Your task to perform on an android device: open sync settings in chrome Image 0: 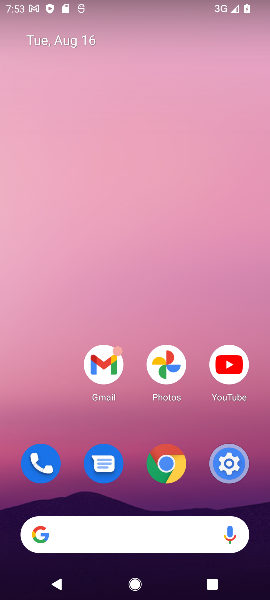
Step 0: click (164, 474)
Your task to perform on an android device: open sync settings in chrome Image 1: 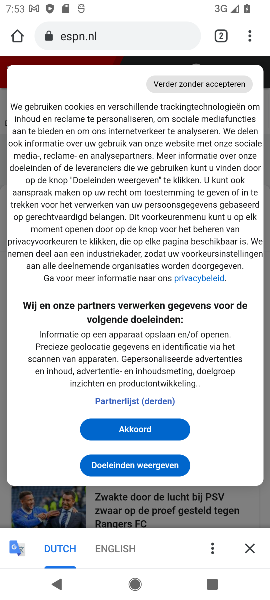
Step 1: click (242, 31)
Your task to perform on an android device: open sync settings in chrome Image 2: 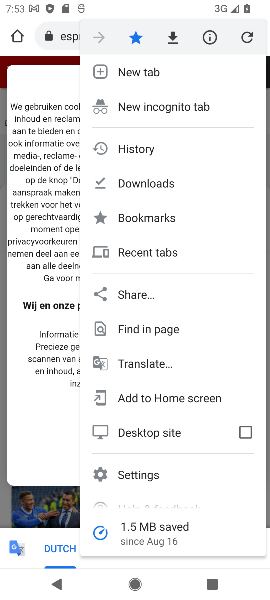
Step 2: click (136, 484)
Your task to perform on an android device: open sync settings in chrome Image 3: 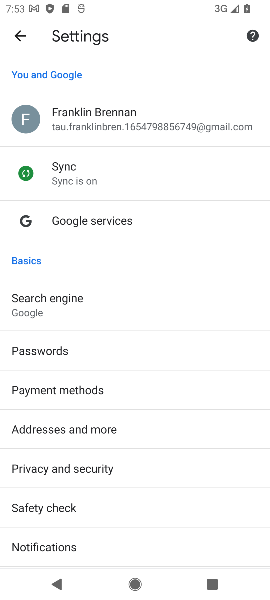
Step 3: click (100, 182)
Your task to perform on an android device: open sync settings in chrome Image 4: 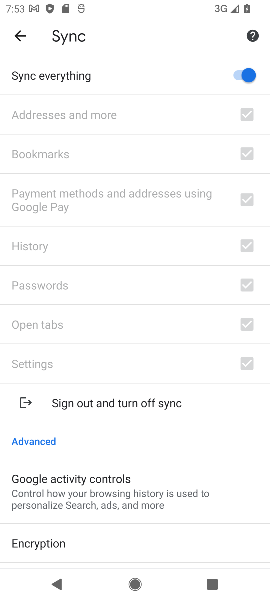
Step 4: task complete